Your task to perform on an android device: star an email in the gmail app Image 0: 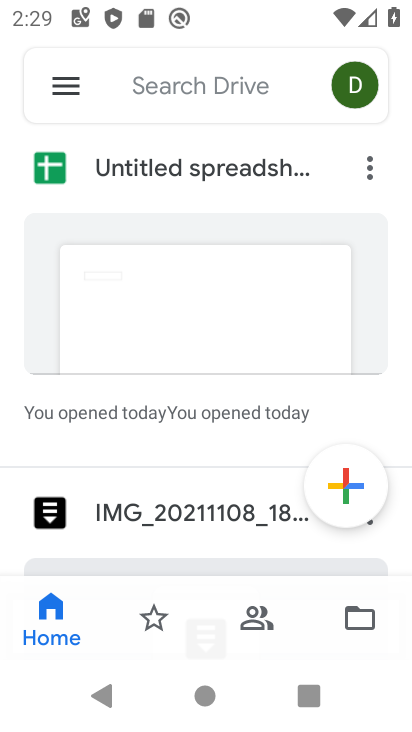
Step 0: press home button
Your task to perform on an android device: star an email in the gmail app Image 1: 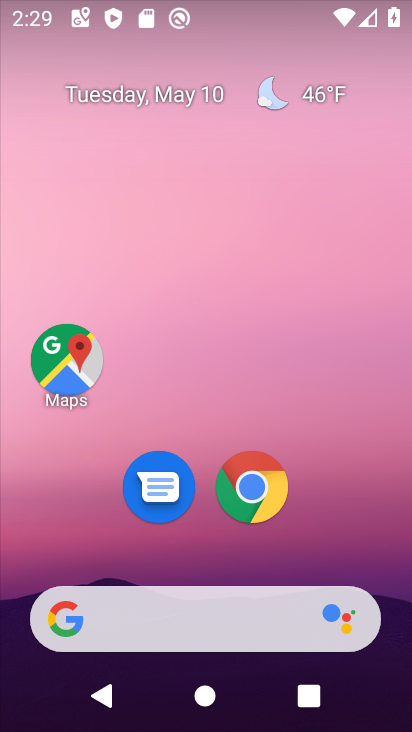
Step 1: drag from (330, 476) to (289, 32)
Your task to perform on an android device: star an email in the gmail app Image 2: 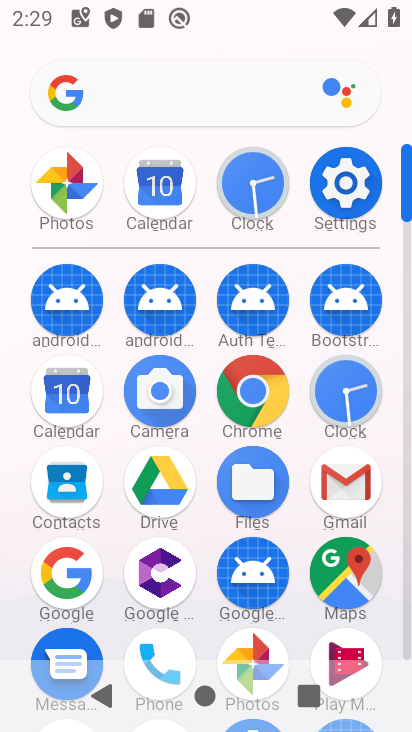
Step 2: click (329, 481)
Your task to perform on an android device: star an email in the gmail app Image 3: 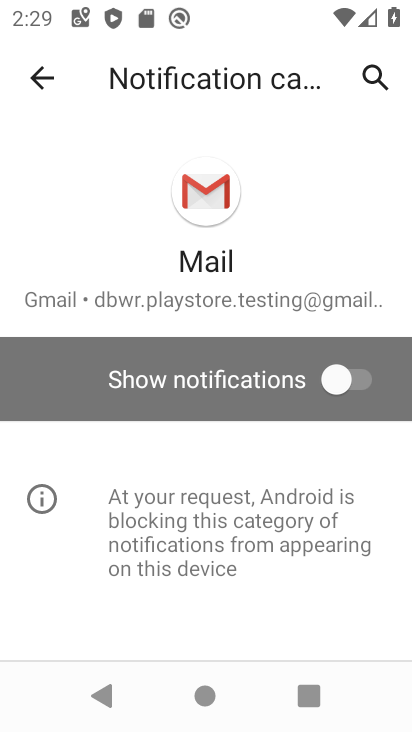
Step 3: click (47, 84)
Your task to perform on an android device: star an email in the gmail app Image 4: 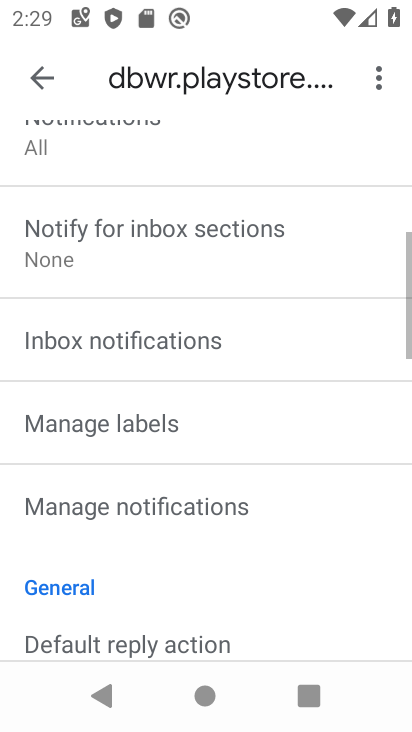
Step 4: click (47, 84)
Your task to perform on an android device: star an email in the gmail app Image 5: 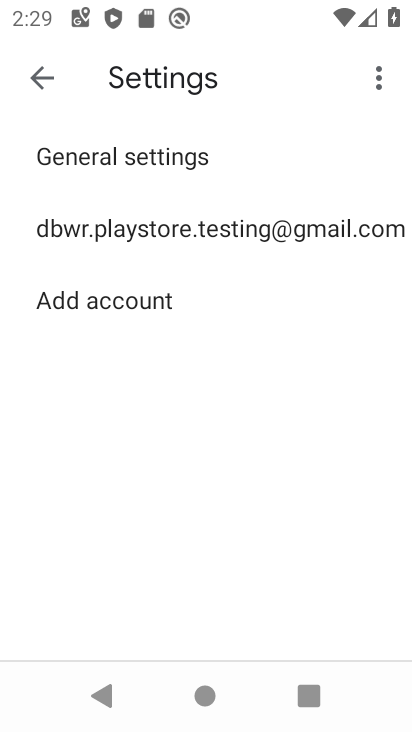
Step 5: click (46, 82)
Your task to perform on an android device: star an email in the gmail app Image 6: 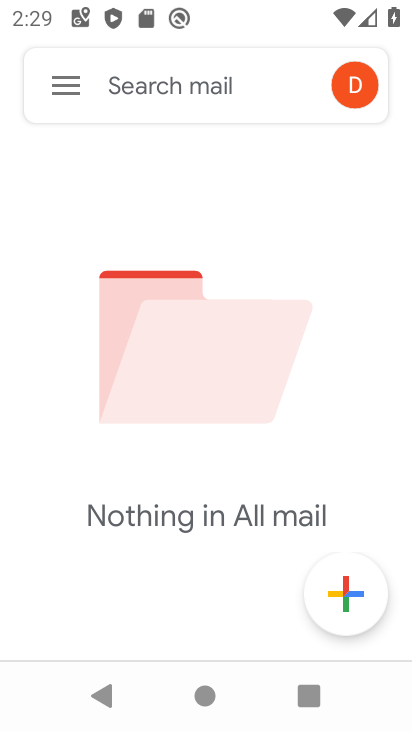
Step 6: click (47, 83)
Your task to perform on an android device: star an email in the gmail app Image 7: 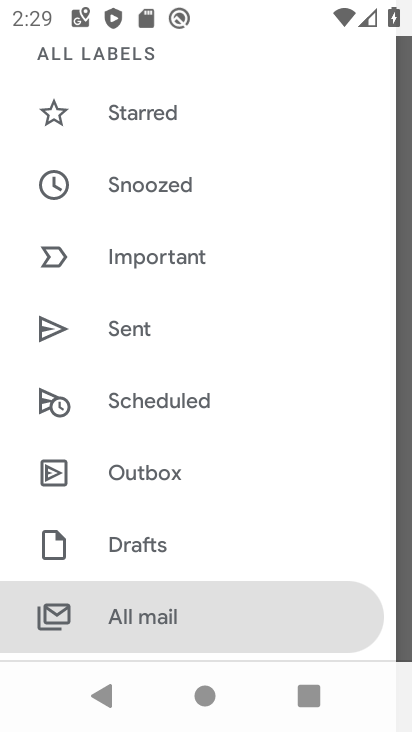
Step 7: click (166, 616)
Your task to perform on an android device: star an email in the gmail app Image 8: 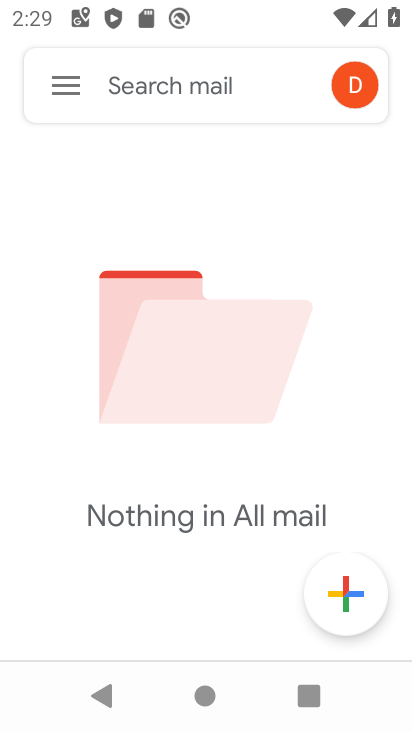
Step 8: task complete